Your task to perform on an android device: toggle sleep mode Image 0: 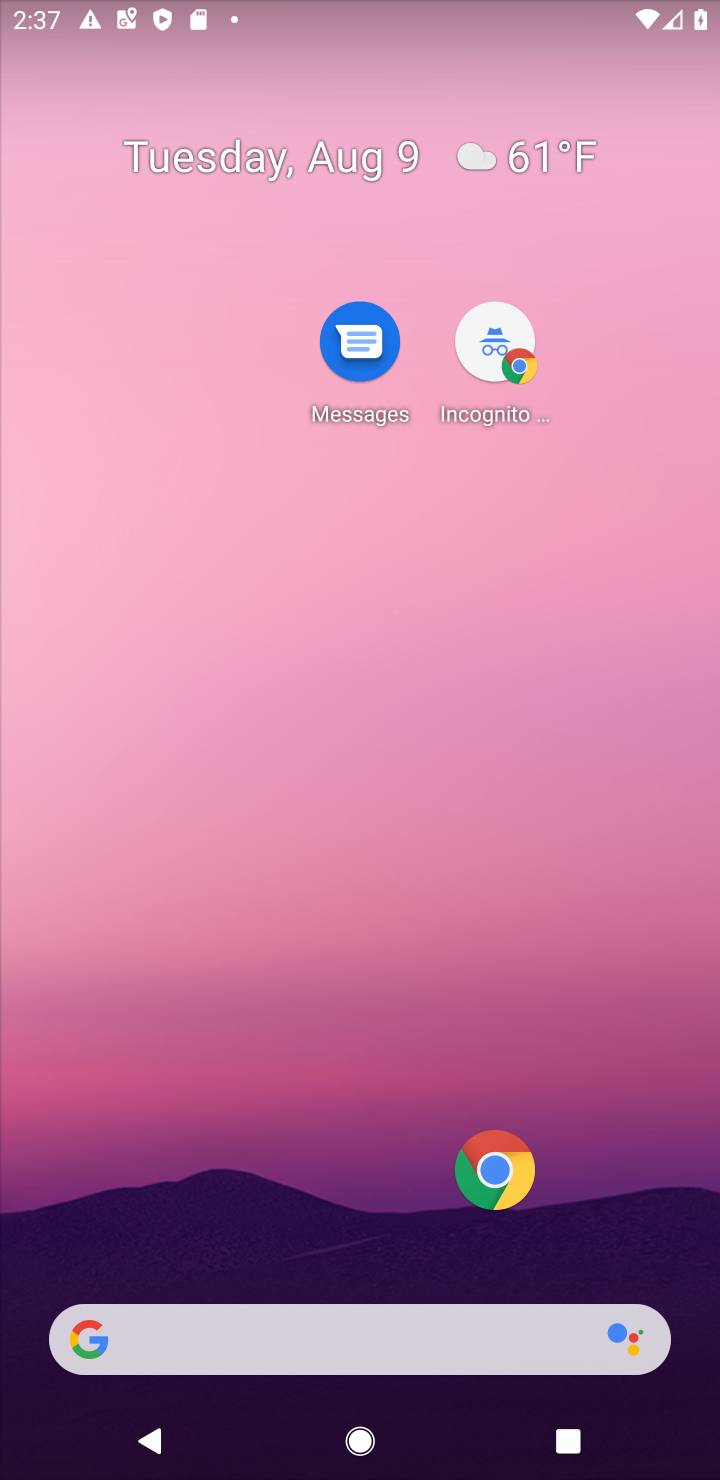
Step 0: drag from (248, 1252) to (363, 370)
Your task to perform on an android device: toggle sleep mode Image 1: 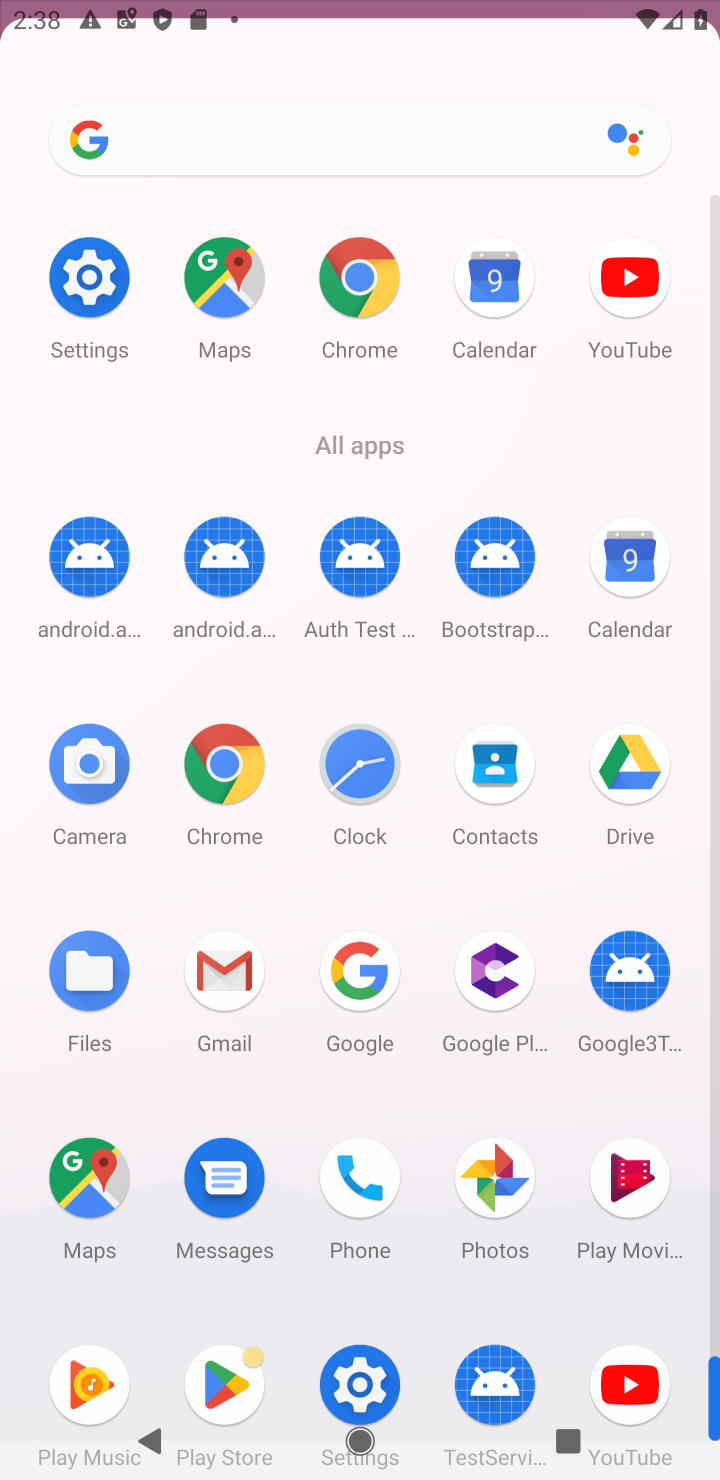
Step 1: click (333, 1366)
Your task to perform on an android device: toggle sleep mode Image 2: 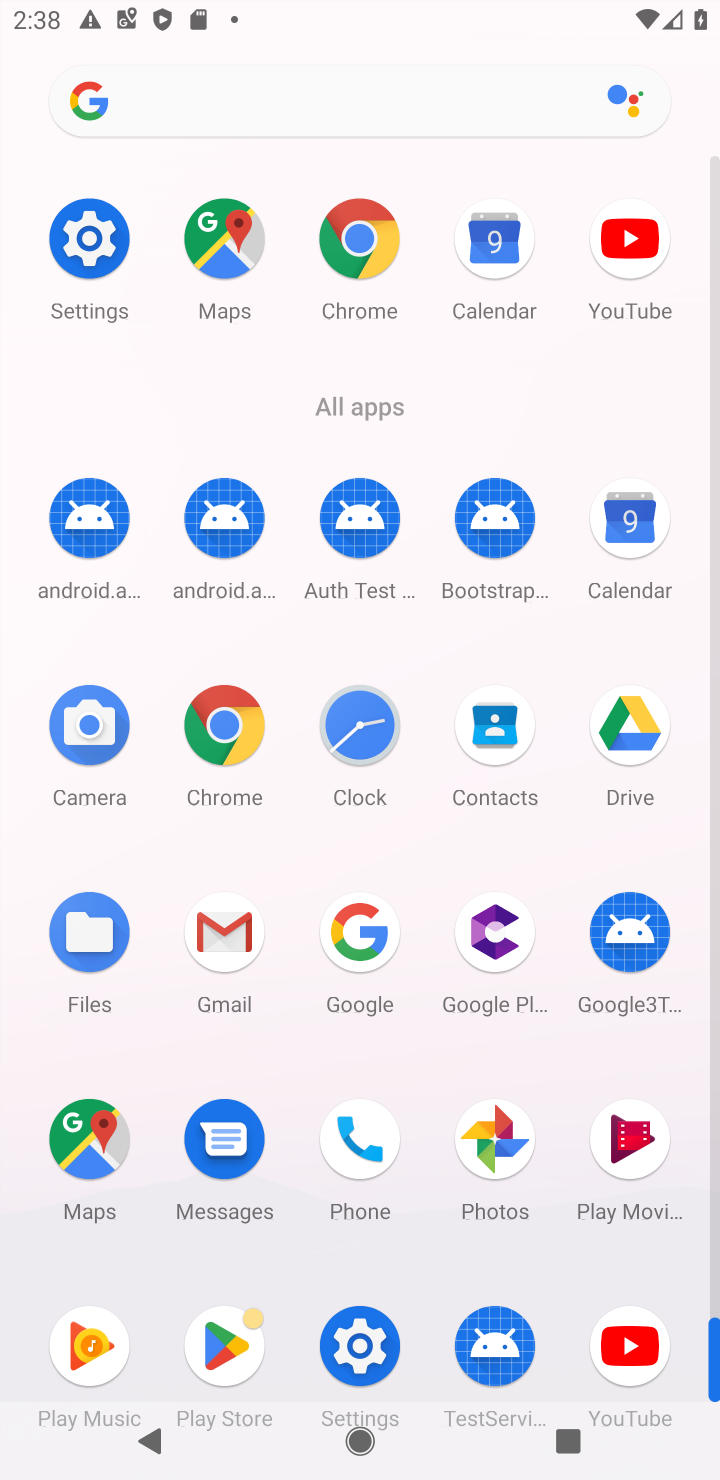
Step 2: click (379, 1337)
Your task to perform on an android device: toggle sleep mode Image 3: 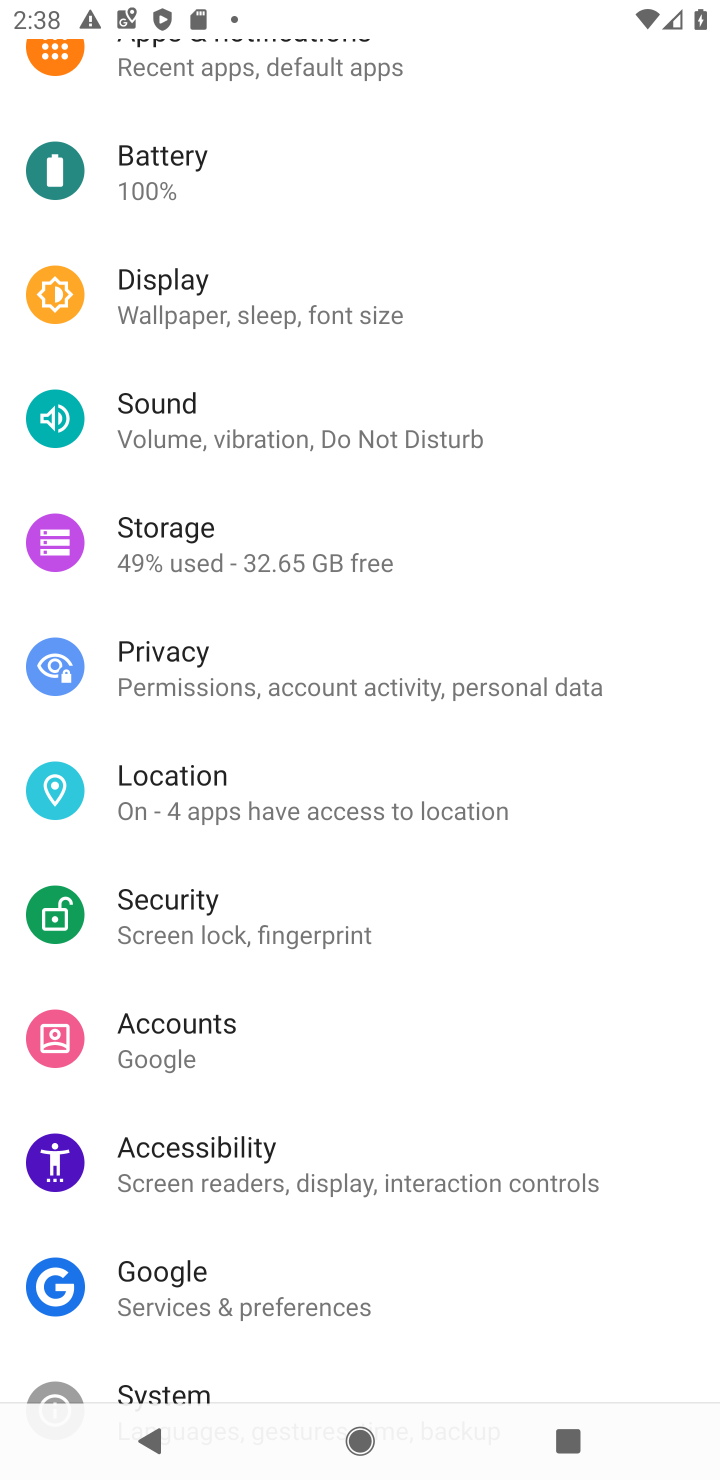
Step 3: drag from (283, 543) to (279, 1195)
Your task to perform on an android device: toggle sleep mode Image 4: 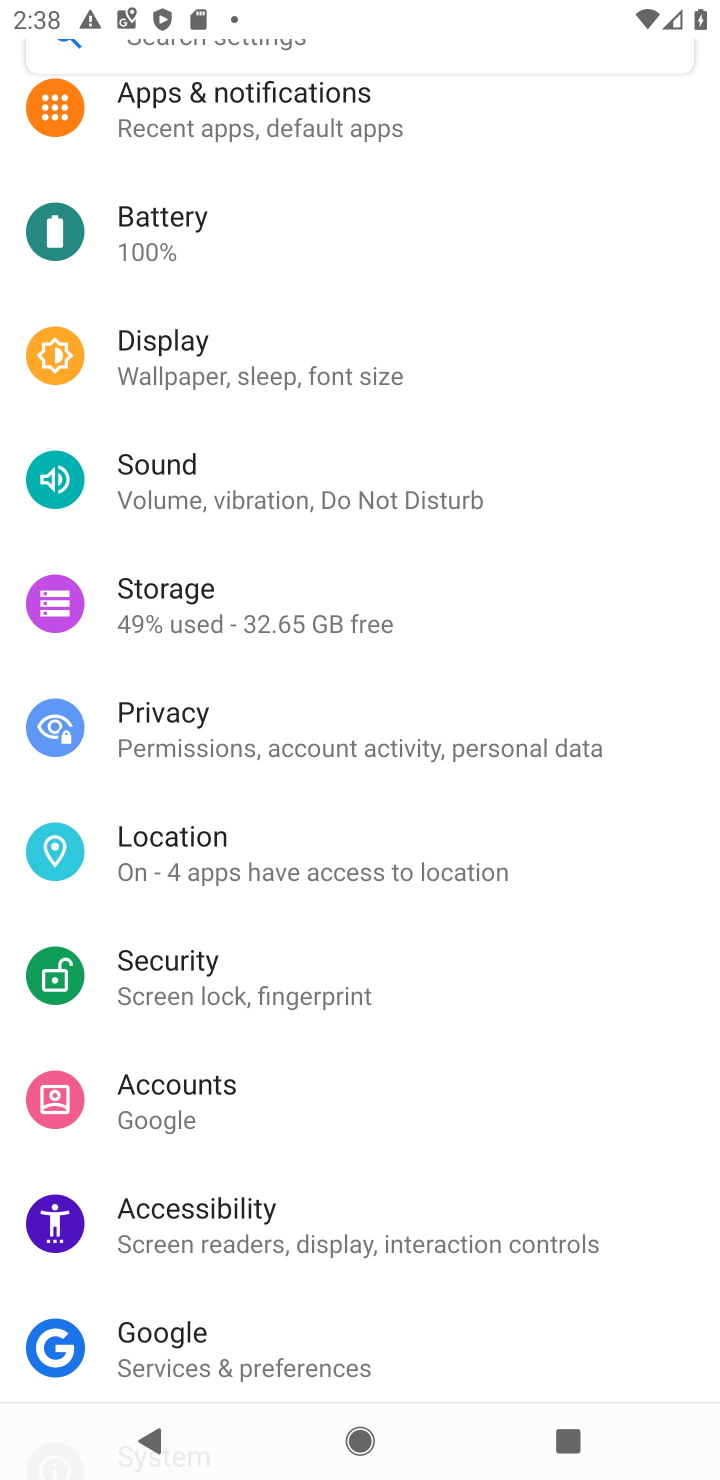
Step 4: drag from (354, 903) to (354, 1427)
Your task to perform on an android device: toggle sleep mode Image 5: 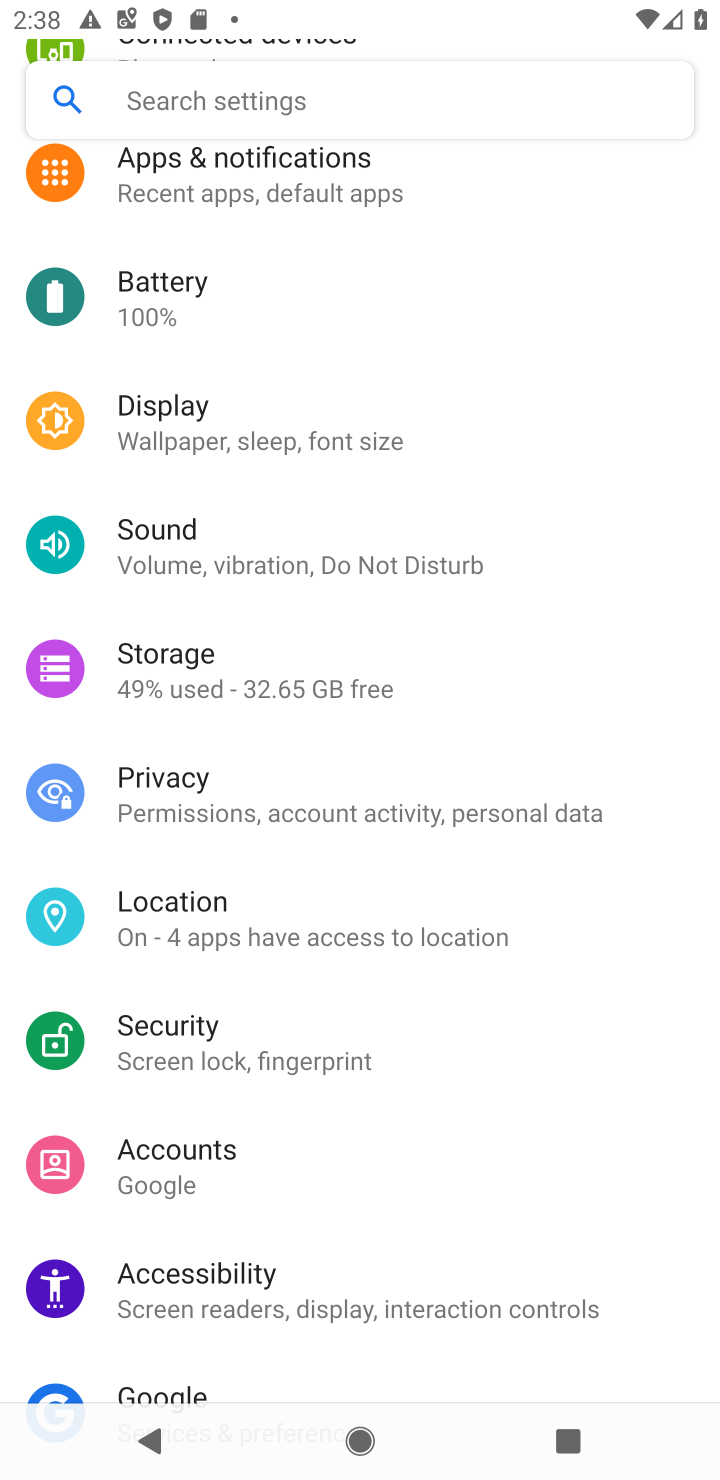
Step 5: click (376, 100)
Your task to perform on an android device: toggle sleep mode Image 6: 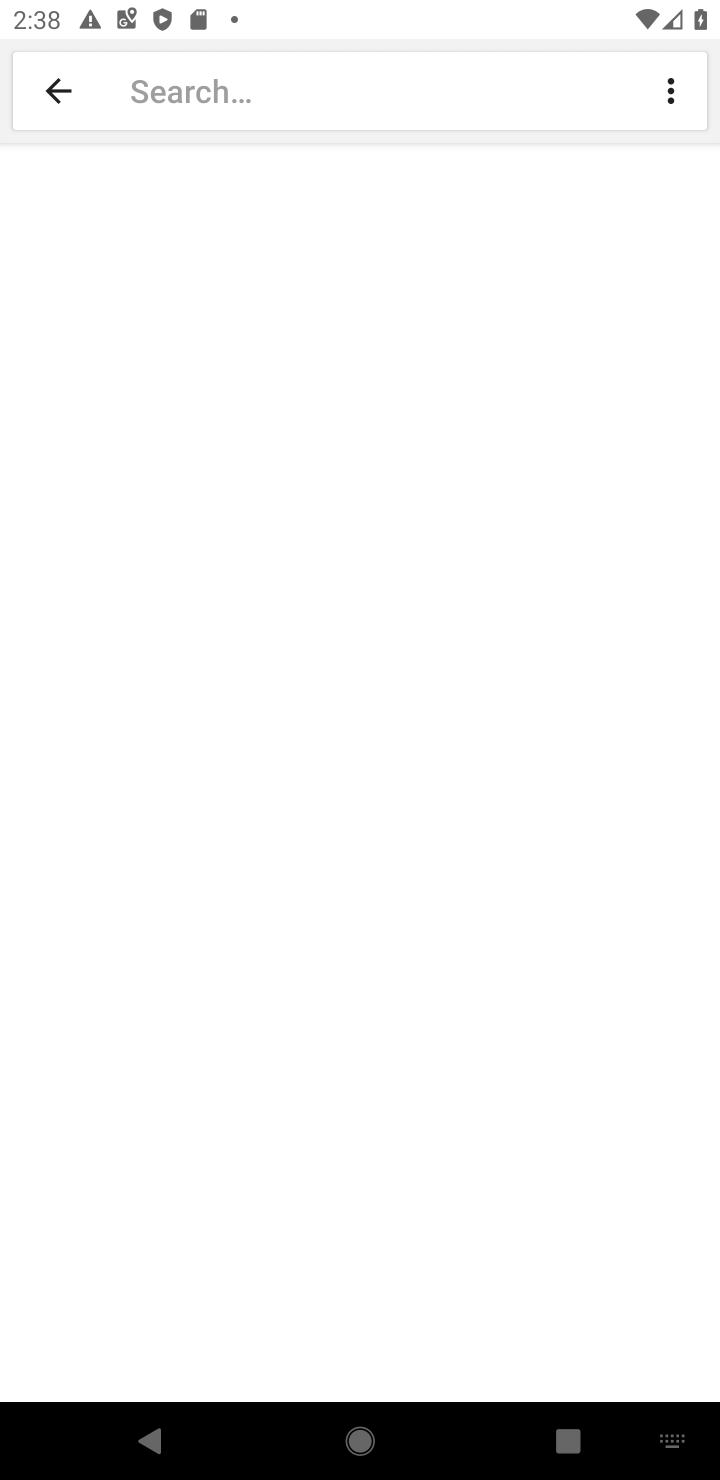
Step 6: type "sleep mode"
Your task to perform on an android device: toggle sleep mode Image 7: 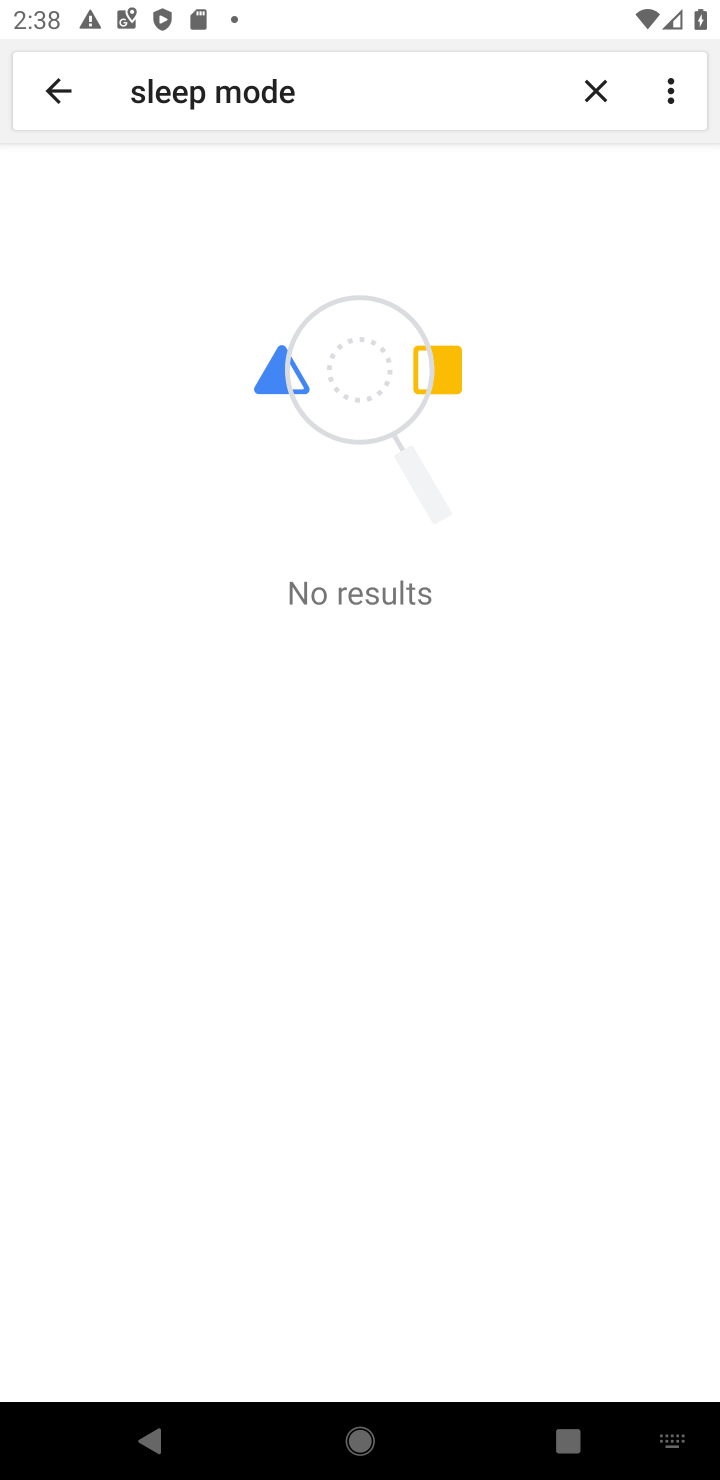
Step 7: task complete